Your task to perform on an android device: Open calendar and show me the third week of next month Image 0: 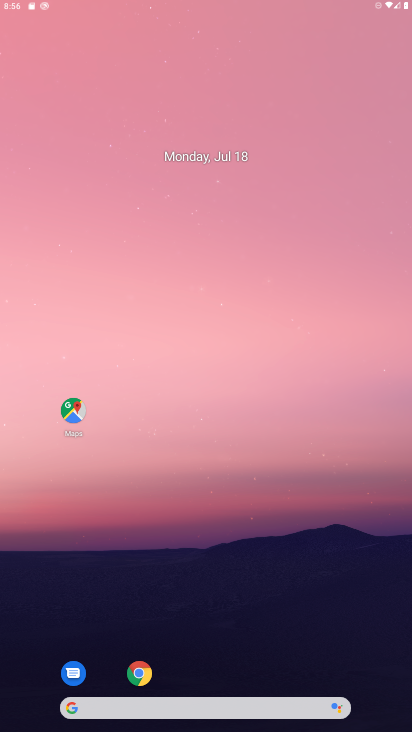
Step 0: press home button
Your task to perform on an android device: Open calendar and show me the third week of next month Image 1: 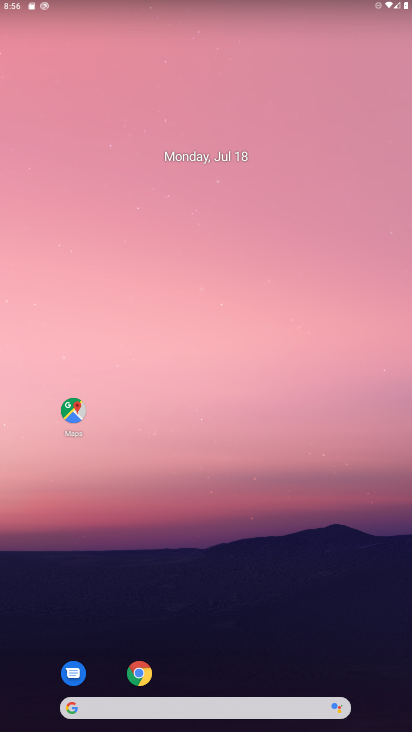
Step 1: drag from (246, 672) to (208, 110)
Your task to perform on an android device: Open calendar and show me the third week of next month Image 2: 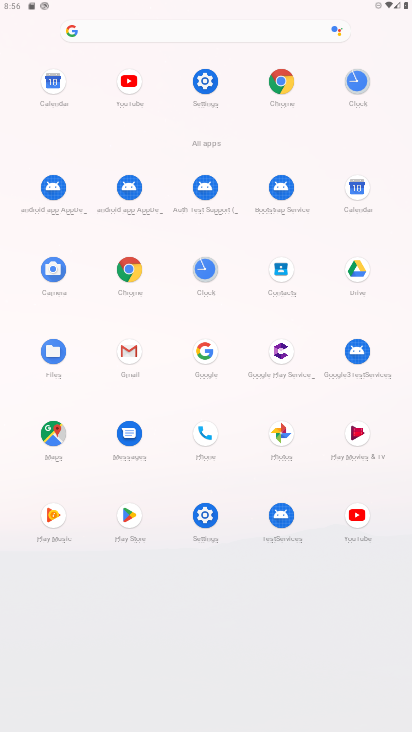
Step 2: click (352, 195)
Your task to perform on an android device: Open calendar and show me the third week of next month Image 3: 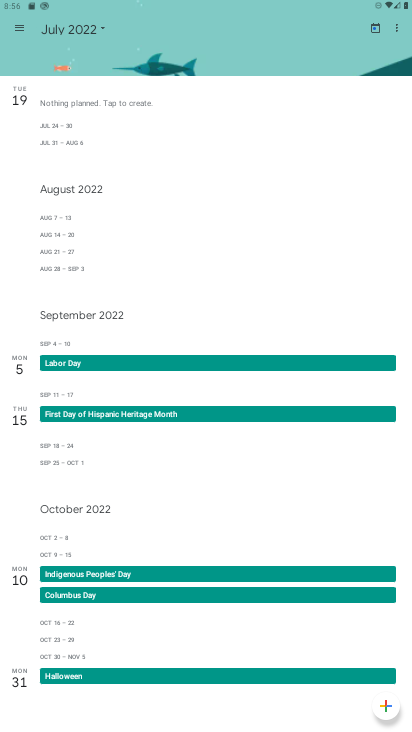
Step 3: click (91, 27)
Your task to perform on an android device: Open calendar and show me the third week of next month Image 4: 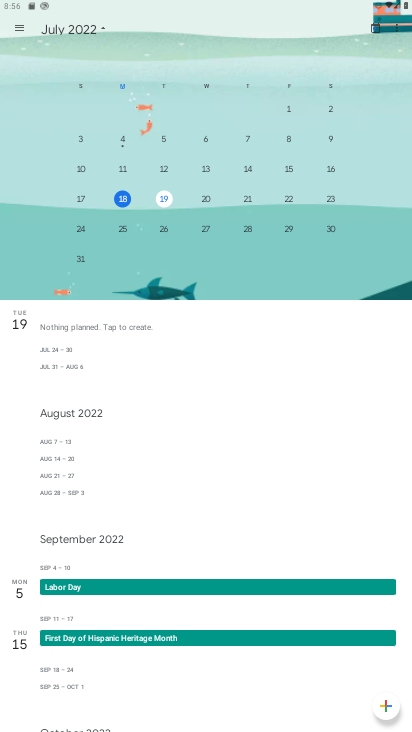
Step 4: drag from (323, 193) to (15, 196)
Your task to perform on an android device: Open calendar and show me the third week of next month Image 5: 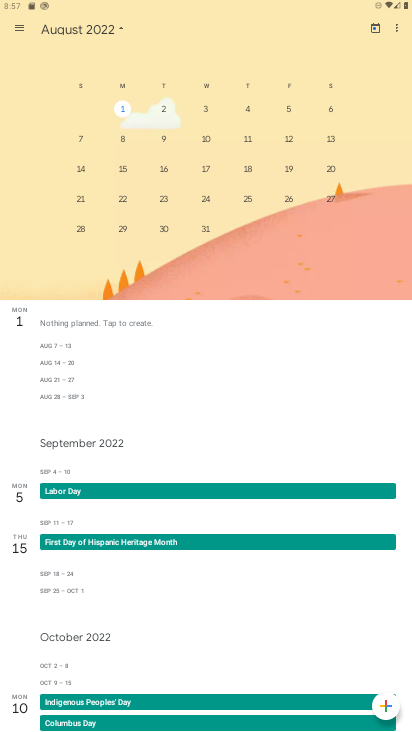
Step 5: click (77, 171)
Your task to perform on an android device: Open calendar and show me the third week of next month Image 6: 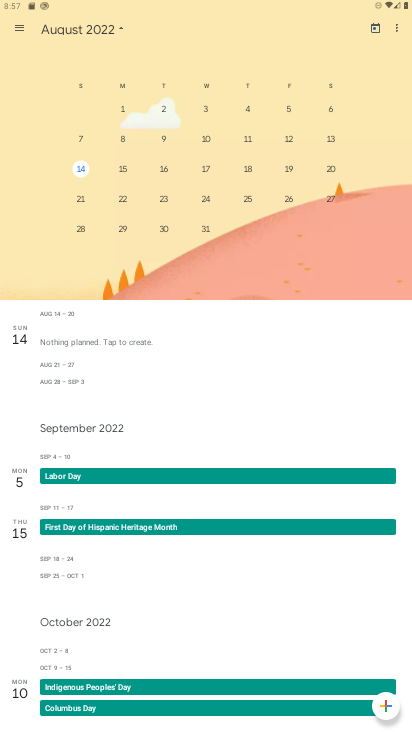
Step 6: click (123, 167)
Your task to perform on an android device: Open calendar and show me the third week of next month Image 7: 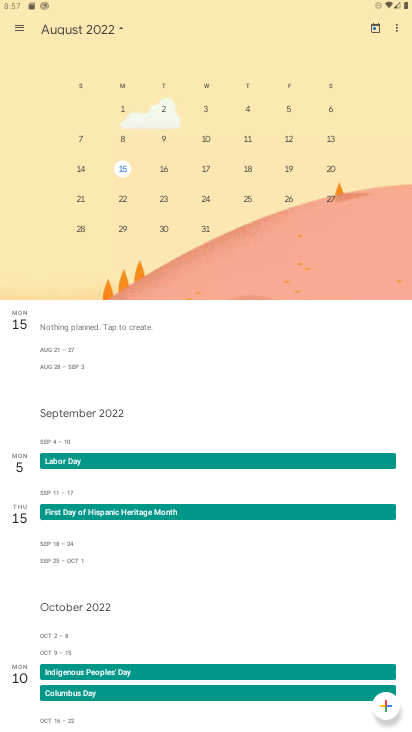
Step 7: click (173, 169)
Your task to perform on an android device: Open calendar and show me the third week of next month Image 8: 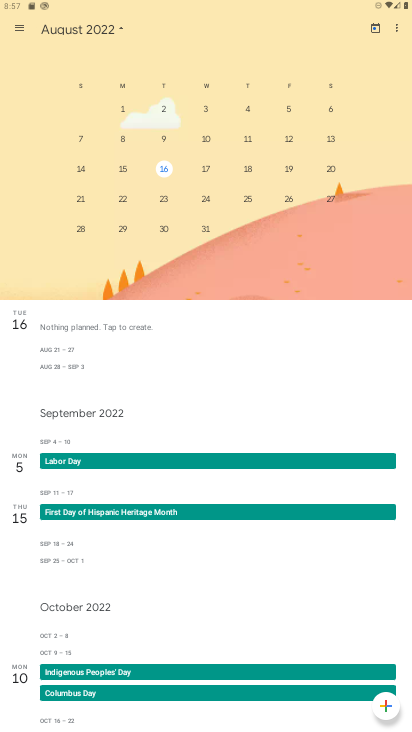
Step 8: click (203, 165)
Your task to perform on an android device: Open calendar and show me the third week of next month Image 9: 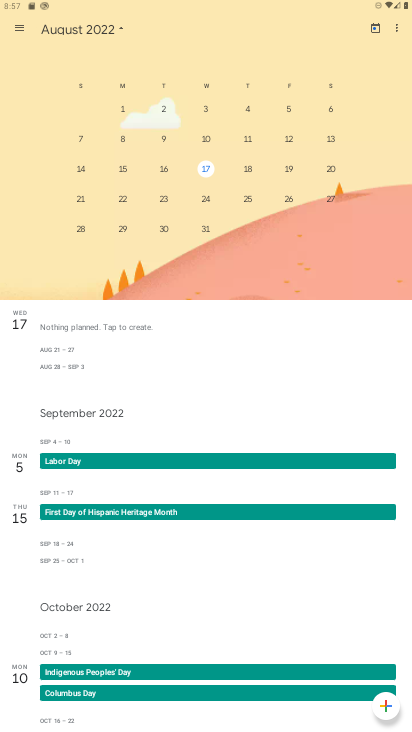
Step 9: click (253, 172)
Your task to perform on an android device: Open calendar and show me the third week of next month Image 10: 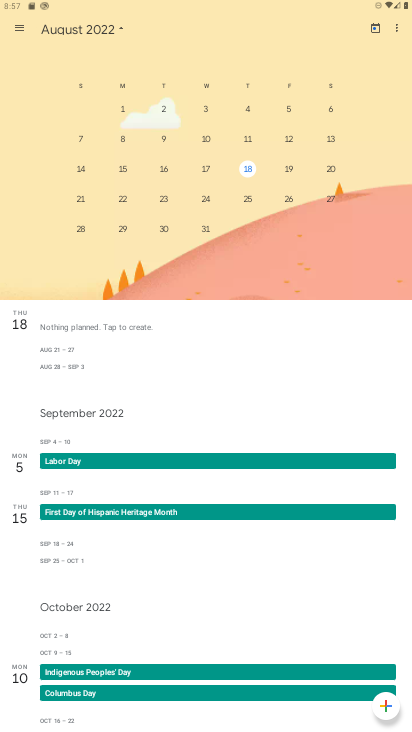
Step 10: click (287, 171)
Your task to perform on an android device: Open calendar and show me the third week of next month Image 11: 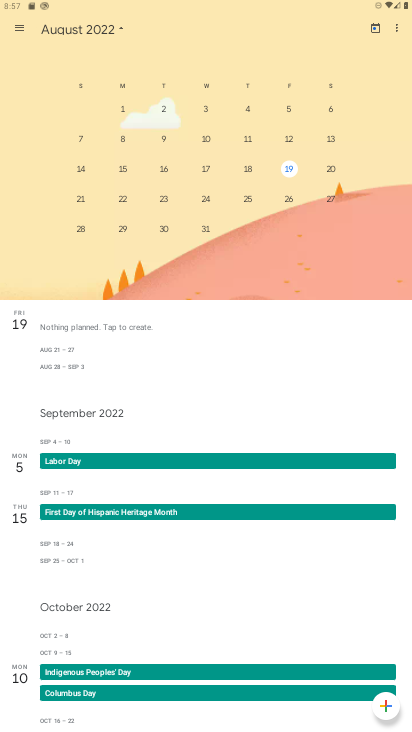
Step 11: click (333, 168)
Your task to perform on an android device: Open calendar and show me the third week of next month Image 12: 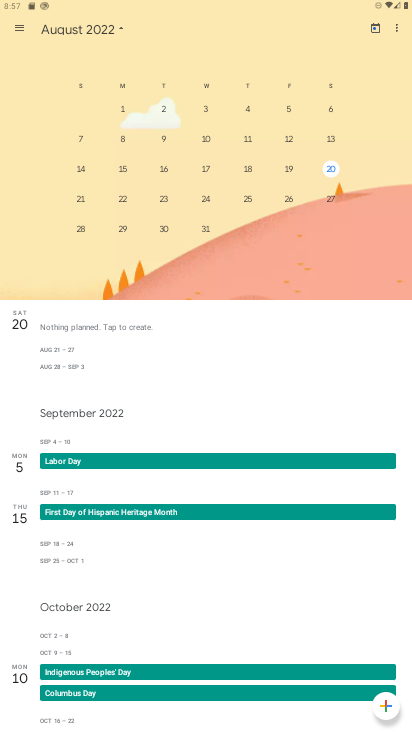
Step 12: task complete